Your task to perform on an android device: turn off smart reply in the gmail app Image 0: 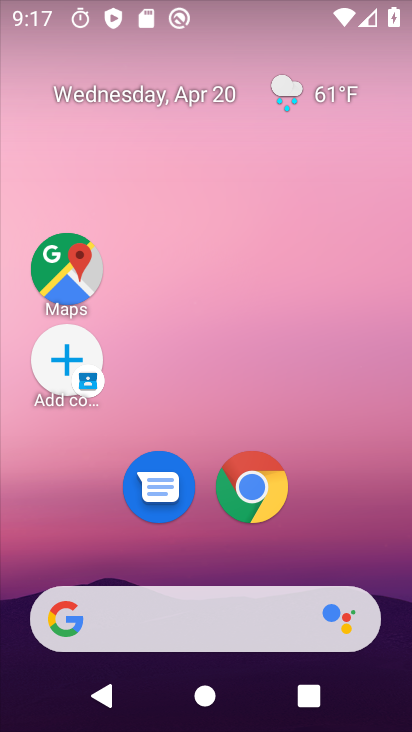
Step 0: drag from (340, 543) to (350, 67)
Your task to perform on an android device: turn off smart reply in the gmail app Image 1: 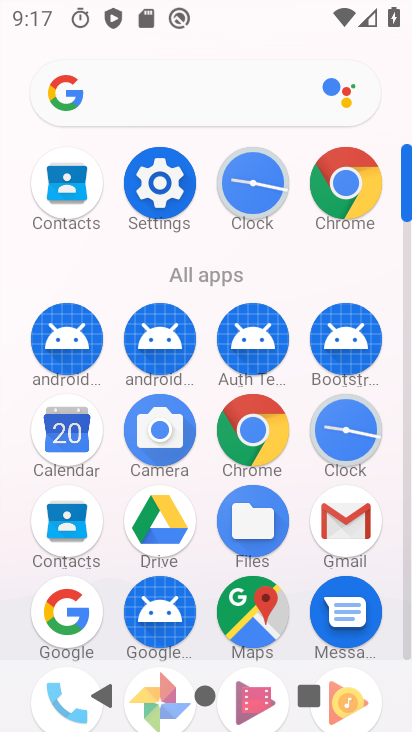
Step 1: click (353, 538)
Your task to perform on an android device: turn off smart reply in the gmail app Image 2: 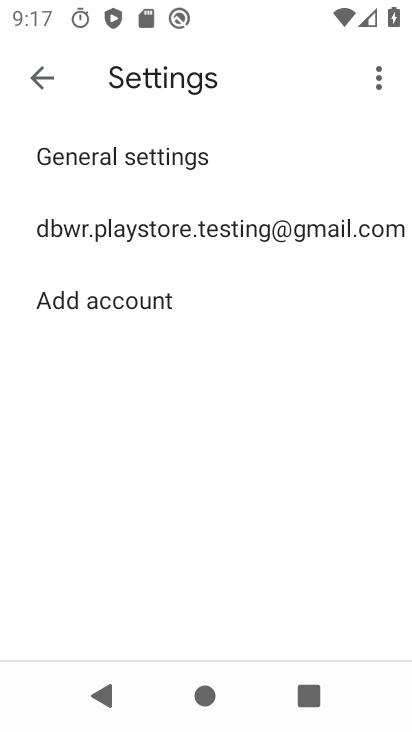
Step 2: click (98, 220)
Your task to perform on an android device: turn off smart reply in the gmail app Image 3: 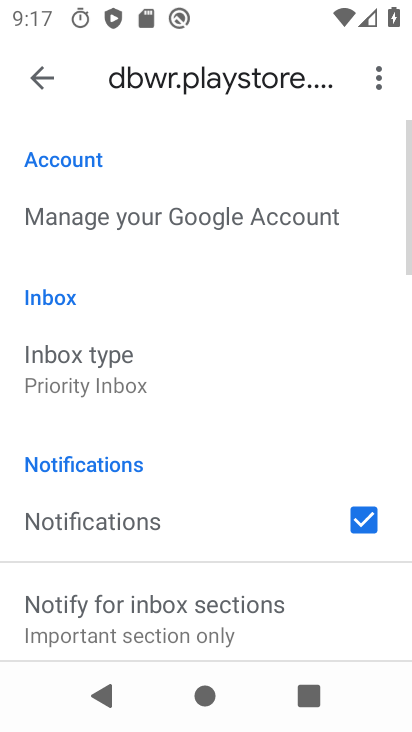
Step 3: drag from (124, 563) to (130, 423)
Your task to perform on an android device: turn off smart reply in the gmail app Image 4: 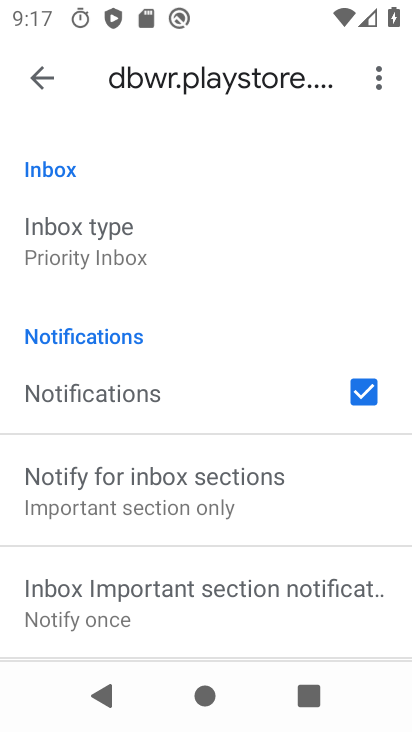
Step 4: drag from (137, 518) to (143, 408)
Your task to perform on an android device: turn off smart reply in the gmail app Image 5: 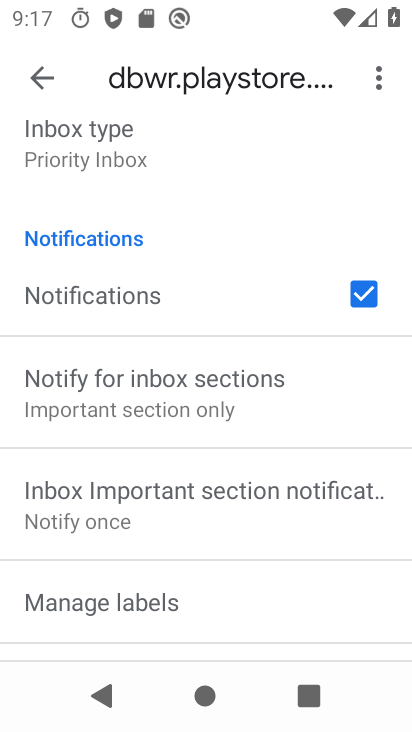
Step 5: drag from (155, 500) to (170, 410)
Your task to perform on an android device: turn off smart reply in the gmail app Image 6: 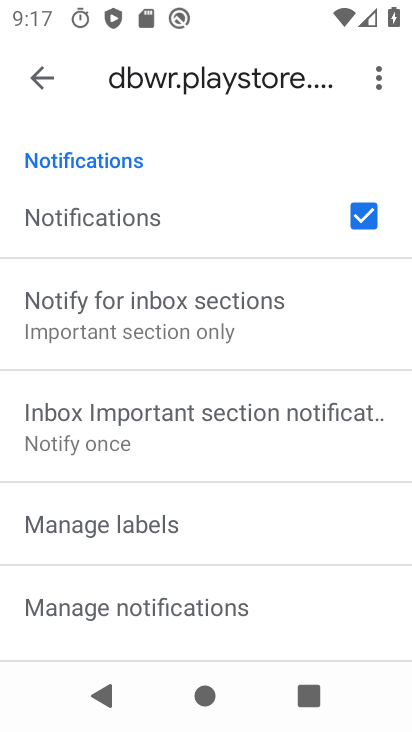
Step 6: drag from (141, 502) to (159, 432)
Your task to perform on an android device: turn off smart reply in the gmail app Image 7: 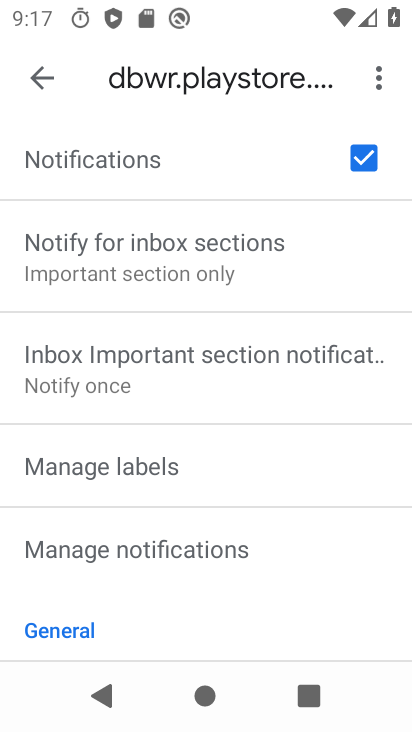
Step 7: drag from (152, 550) to (149, 497)
Your task to perform on an android device: turn off smart reply in the gmail app Image 8: 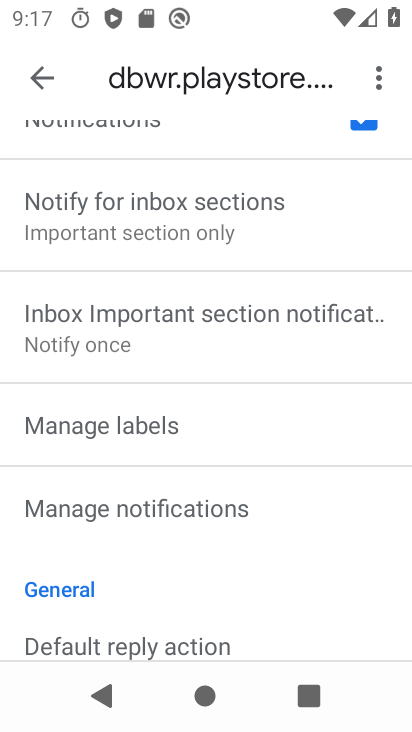
Step 8: drag from (156, 554) to (171, 461)
Your task to perform on an android device: turn off smart reply in the gmail app Image 9: 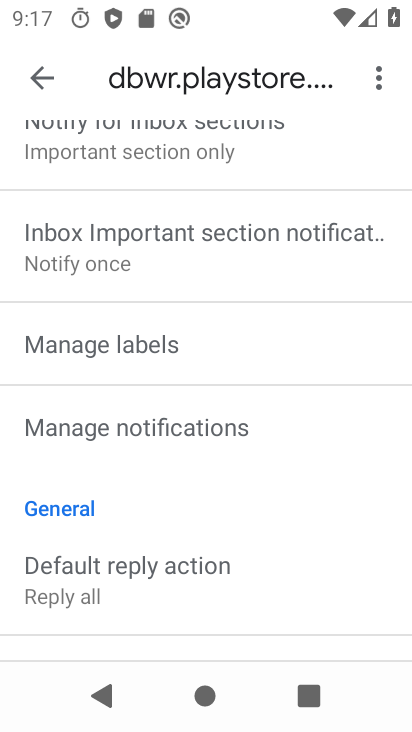
Step 9: drag from (157, 568) to (176, 478)
Your task to perform on an android device: turn off smart reply in the gmail app Image 10: 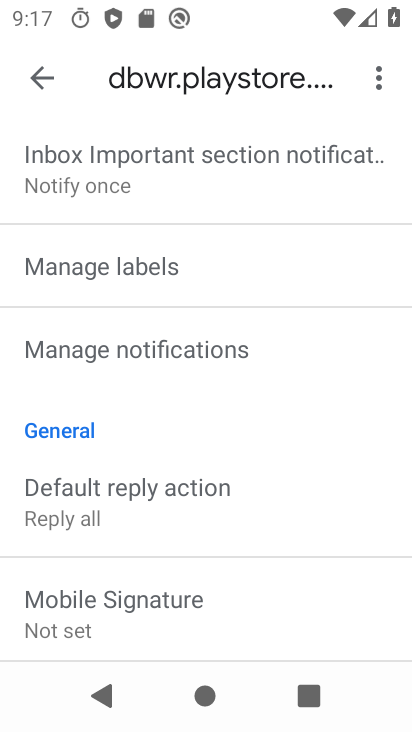
Step 10: drag from (159, 549) to (184, 434)
Your task to perform on an android device: turn off smart reply in the gmail app Image 11: 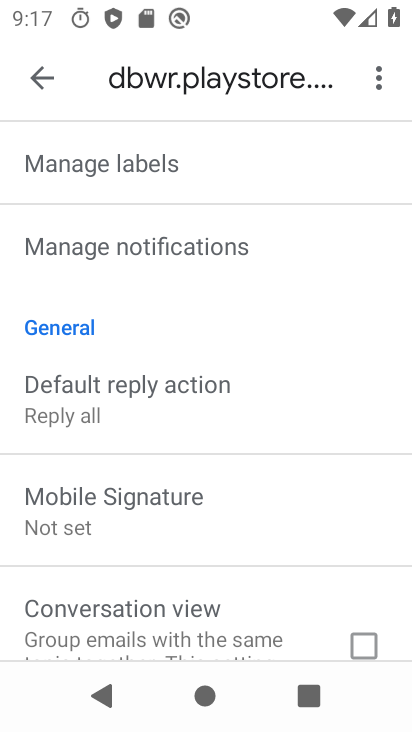
Step 11: drag from (166, 531) to (190, 431)
Your task to perform on an android device: turn off smart reply in the gmail app Image 12: 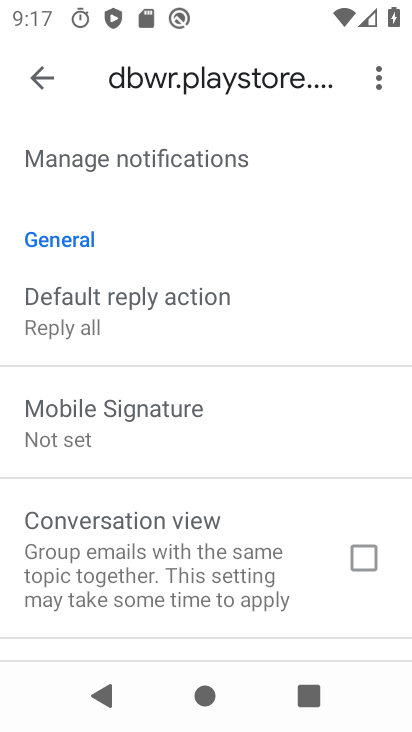
Step 12: drag from (192, 536) to (228, 399)
Your task to perform on an android device: turn off smart reply in the gmail app Image 13: 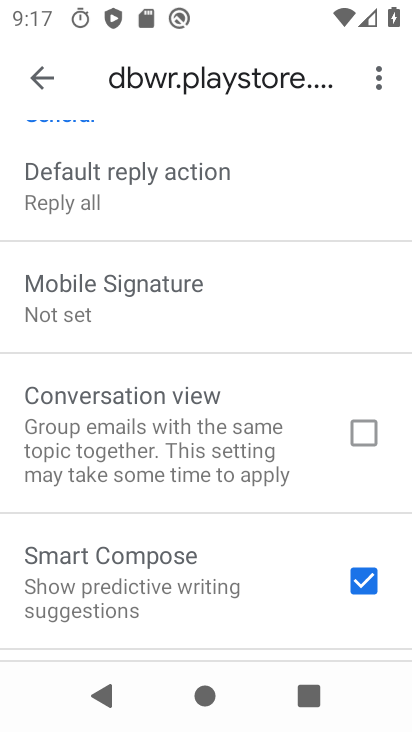
Step 13: drag from (194, 549) to (215, 471)
Your task to perform on an android device: turn off smart reply in the gmail app Image 14: 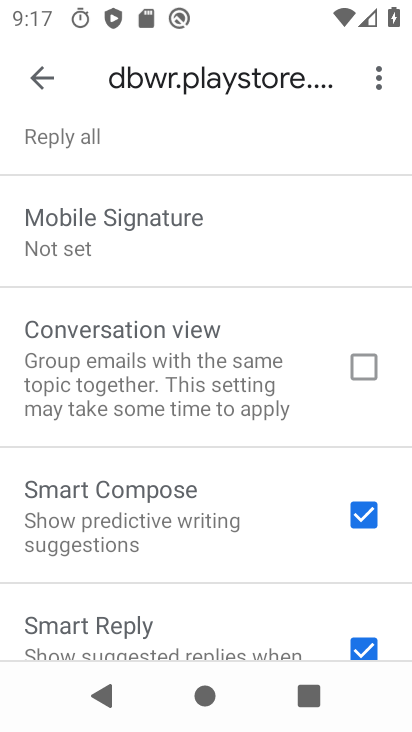
Step 14: drag from (261, 642) to (288, 526)
Your task to perform on an android device: turn off smart reply in the gmail app Image 15: 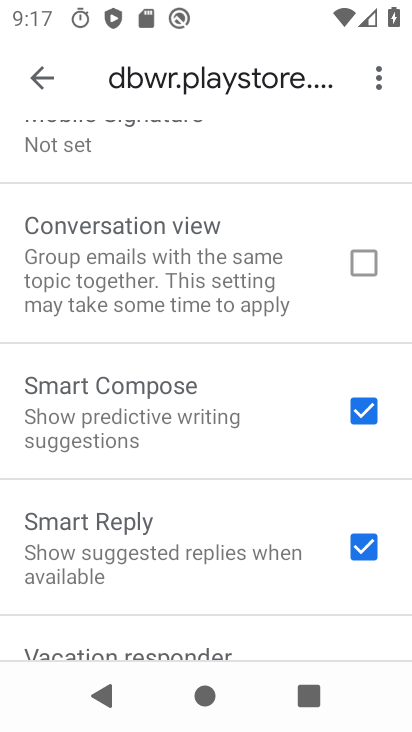
Step 15: click (370, 540)
Your task to perform on an android device: turn off smart reply in the gmail app Image 16: 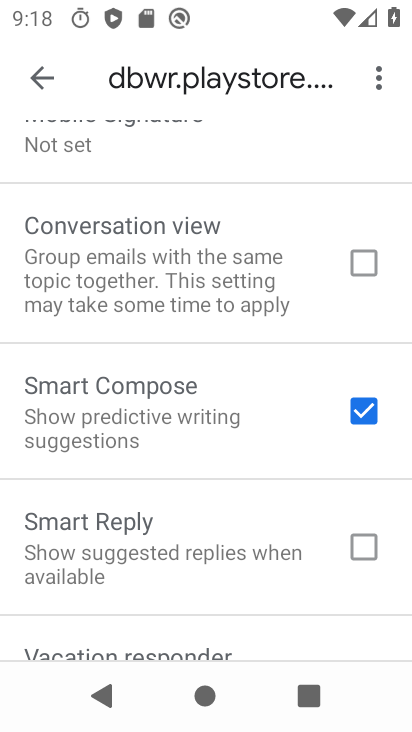
Step 16: task complete